Your task to perform on an android device: See recent photos Image 0: 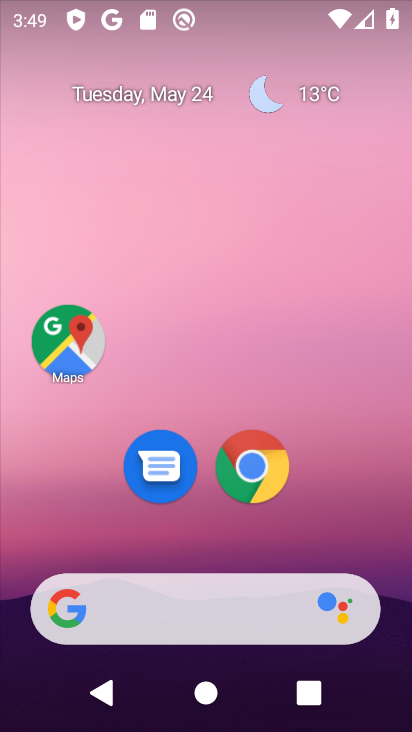
Step 0: drag from (349, 369) to (312, 8)
Your task to perform on an android device: See recent photos Image 1: 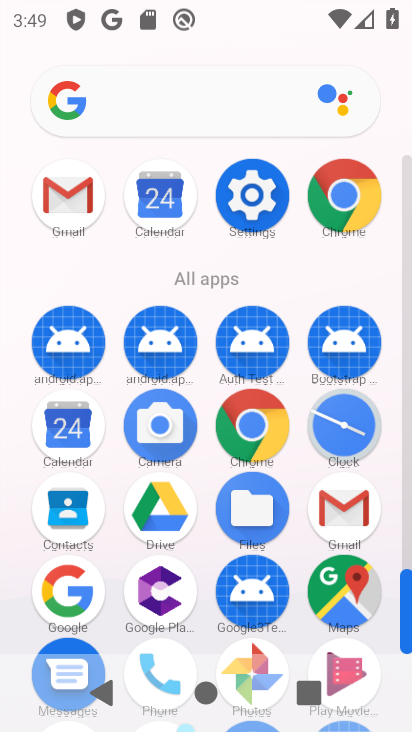
Step 1: drag from (300, 549) to (329, 292)
Your task to perform on an android device: See recent photos Image 2: 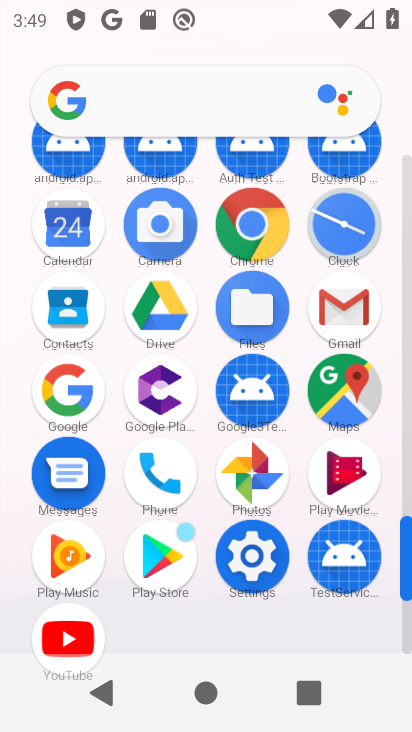
Step 2: click (248, 486)
Your task to perform on an android device: See recent photos Image 3: 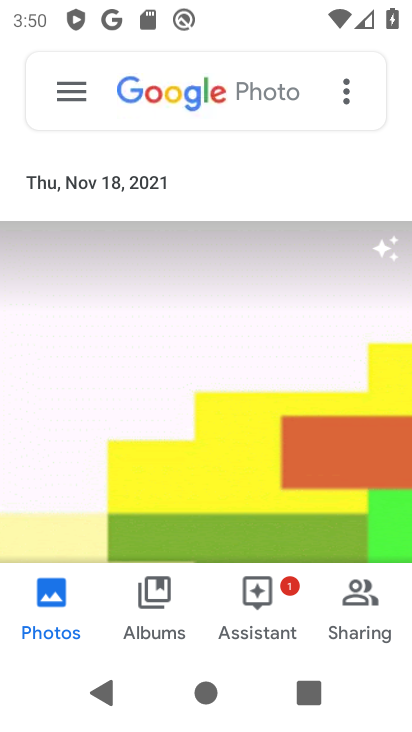
Step 3: task complete